Your task to perform on an android device: What's the weather? Image 0: 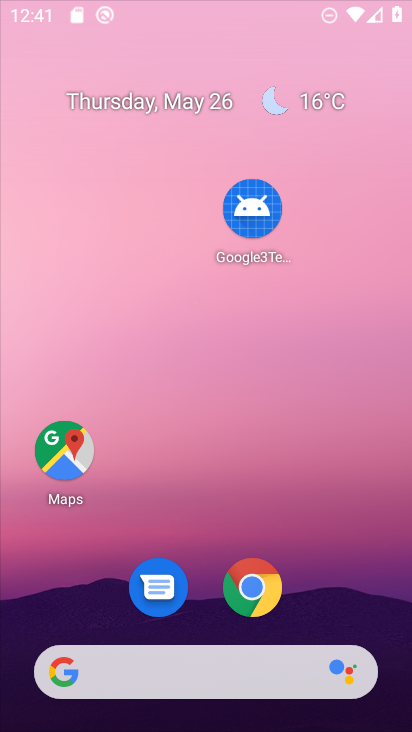
Step 0: drag from (227, 655) to (258, 136)
Your task to perform on an android device: What's the weather? Image 1: 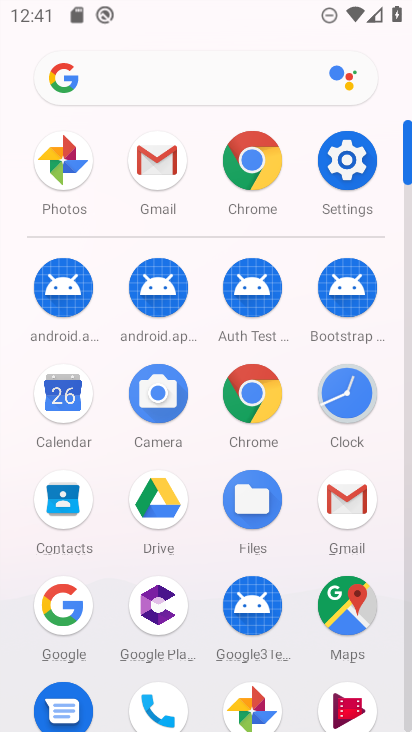
Step 1: click (43, 597)
Your task to perform on an android device: What's the weather? Image 2: 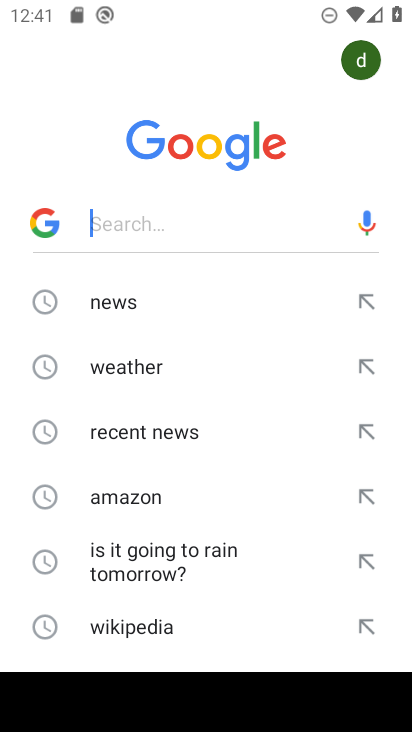
Step 2: click (125, 372)
Your task to perform on an android device: What's the weather? Image 3: 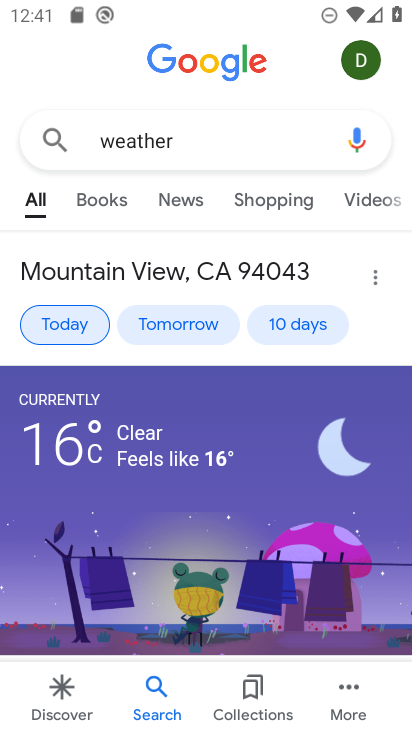
Step 3: task complete